Your task to perform on an android device: Go to wifi settings Image 0: 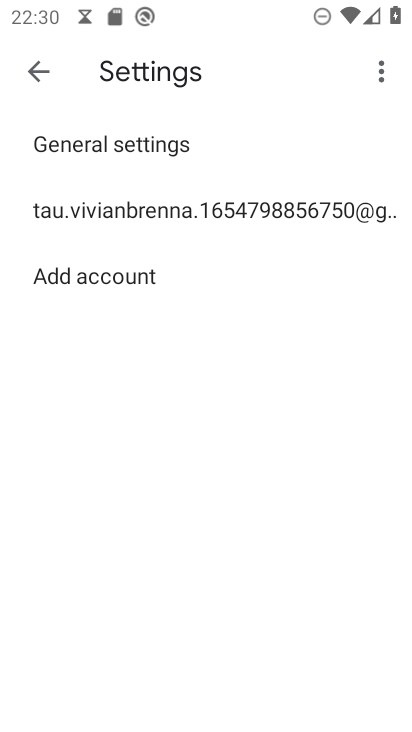
Step 0: press home button
Your task to perform on an android device: Go to wifi settings Image 1: 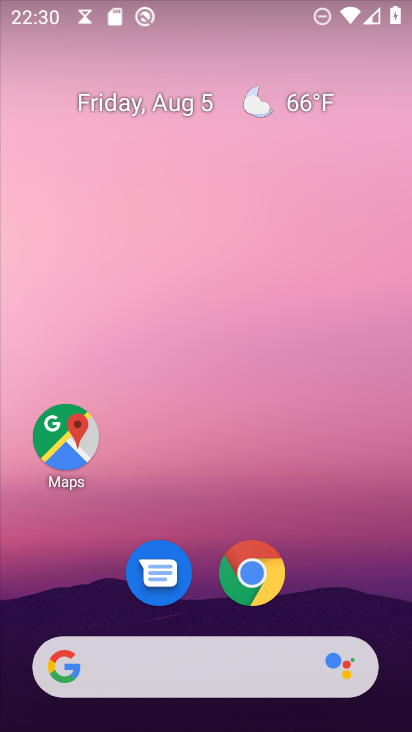
Step 1: drag from (131, 665) to (279, 62)
Your task to perform on an android device: Go to wifi settings Image 2: 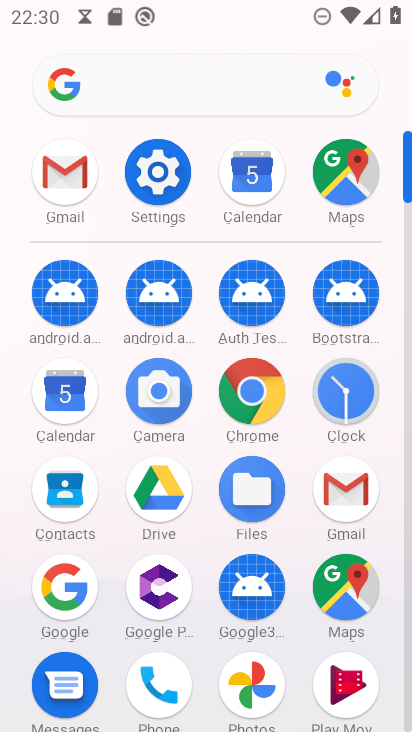
Step 2: click (160, 172)
Your task to perform on an android device: Go to wifi settings Image 3: 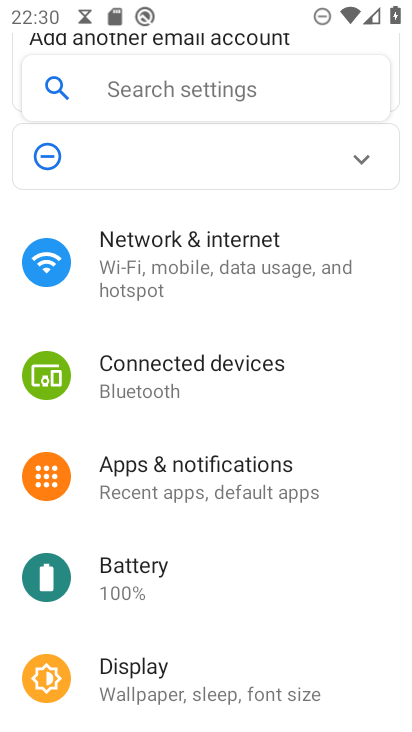
Step 3: click (206, 259)
Your task to perform on an android device: Go to wifi settings Image 4: 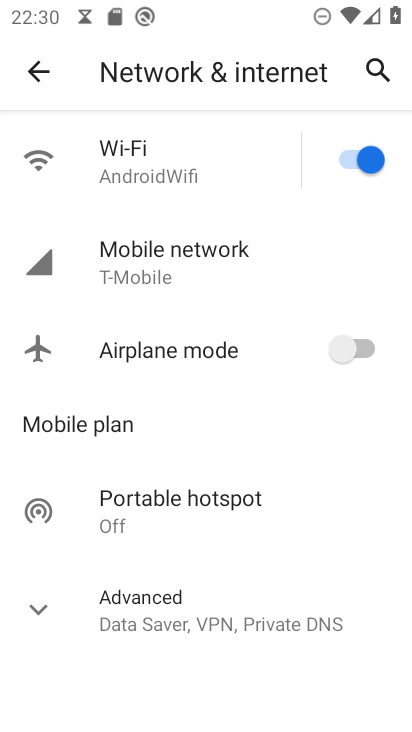
Step 4: click (144, 166)
Your task to perform on an android device: Go to wifi settings Image 5: 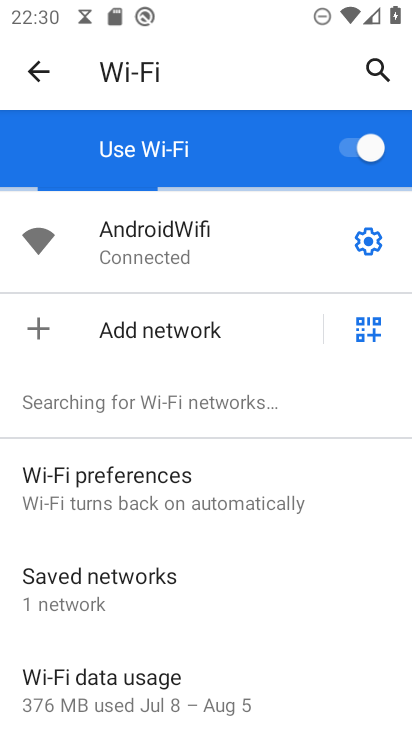
Step 5: click (371, 238)
Your task to perform on an android device: Go to wifi settings Image 6: 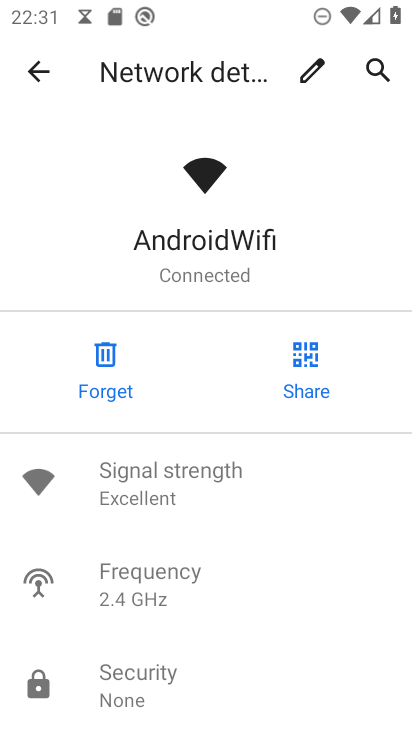
Step 6: task complete